Your task to perform on an android device: turn pop-ups off in chrome Image 0: 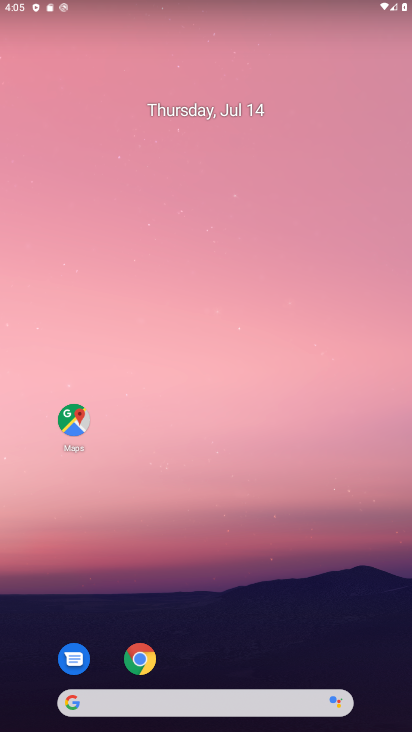
Step 0: drag from (250, 680) to (168, 140)
Your task to perform on an android device: turn pop-ups off in chrome Image 1: 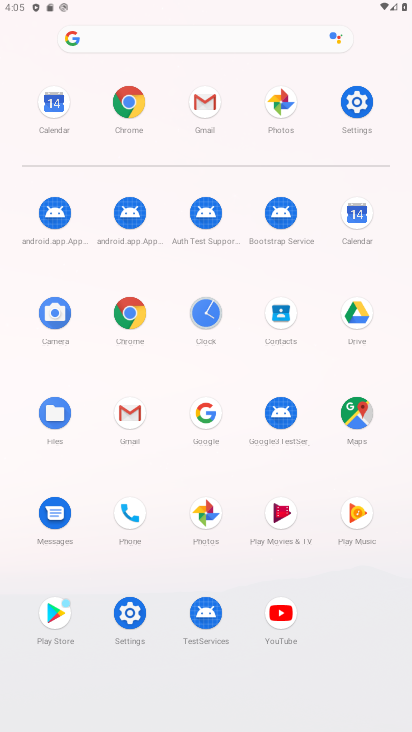
Step 1: click (115, 103)
Your task to perform on an android device: turn pop-ups off in chrome Image 2: 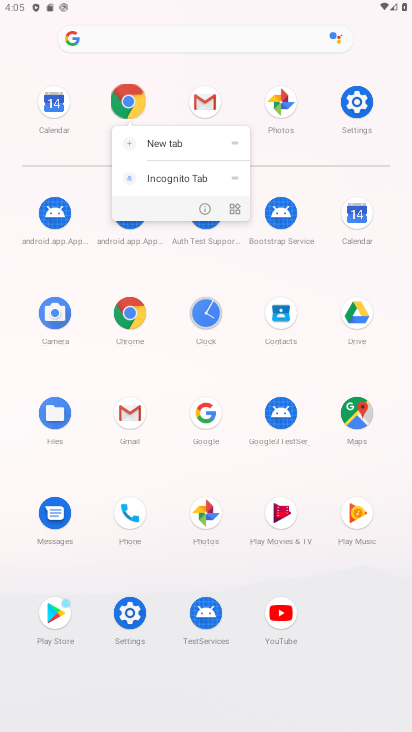
Step 2: click (123, 111)
Your task to perform on an android device: turn pop-ups off in chrome Image 3: 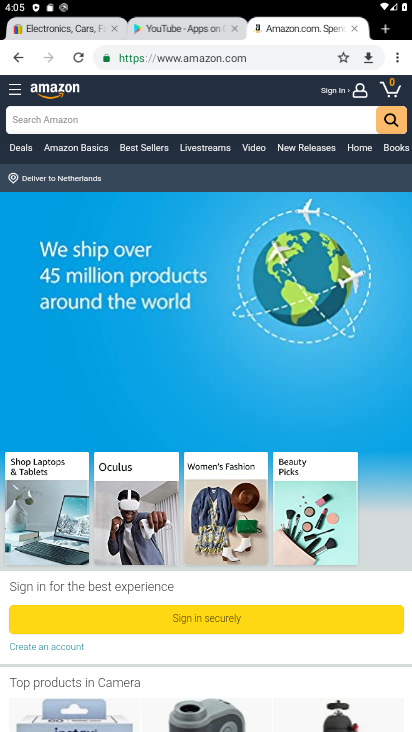
Step 3: click (399, 52)
Your task to perform on an android device: turn pop-ups off in chrome Image 4: 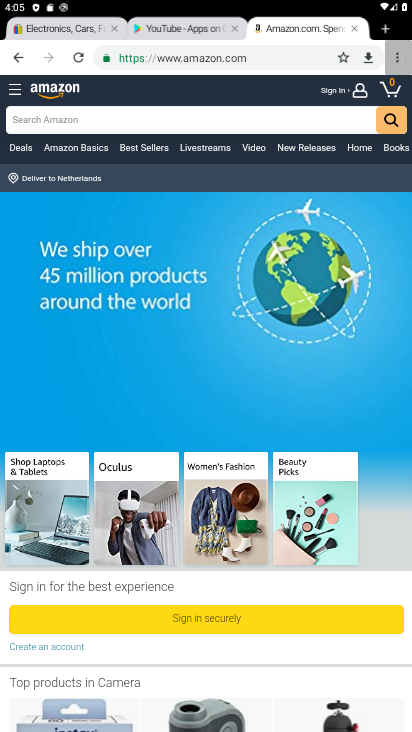
Step 4: click (396, 51)
Your task to perform on an android device: turn pop-ups off in chrome Image 5: 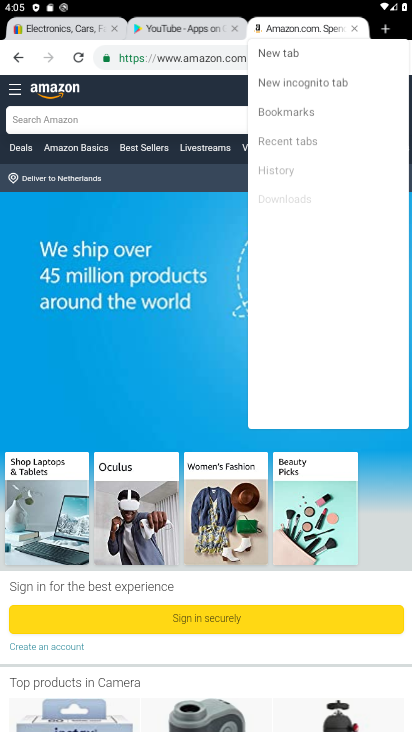
Step 5: click (396, 51)
Your task to perform on an android device: turn pop-ups off in chrome Image 6: 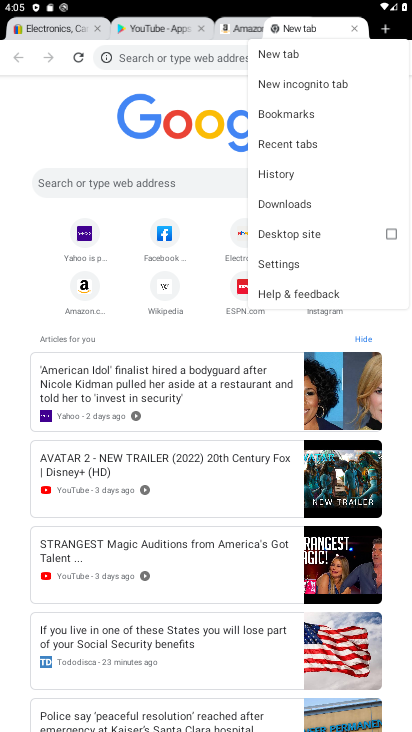
Step 6: click (273, 265)
Your task to perform on an android device: turn pop-ups off in chrome Image 7: 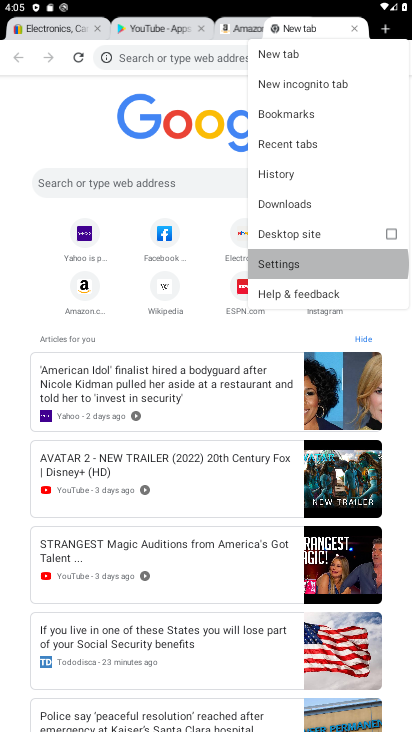
Step 7: click (275, 266)
Your task to perform on an android device: turn pop-ups off in chrome Image 8: 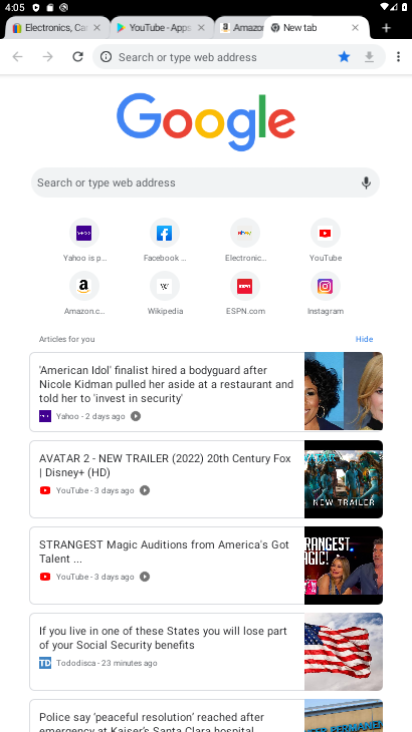
Step 8: click (276, 261)
Your task to perform on an android device: turn pop-ups off in chrome Image 9: 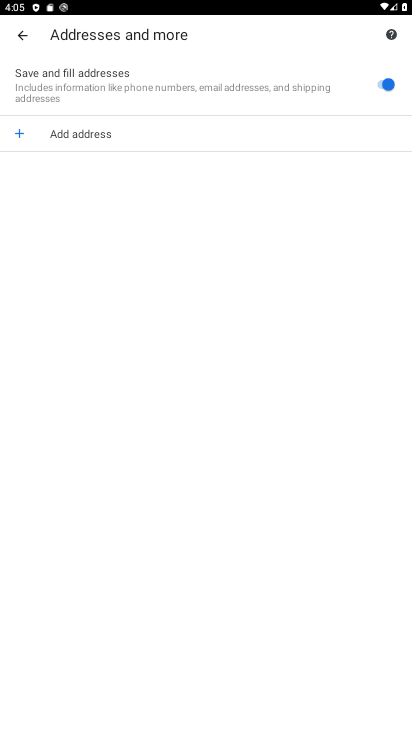
Step 9: click (15, 35)
Your task to perform on an android device: turn pop-ups off in chrome Image 10: 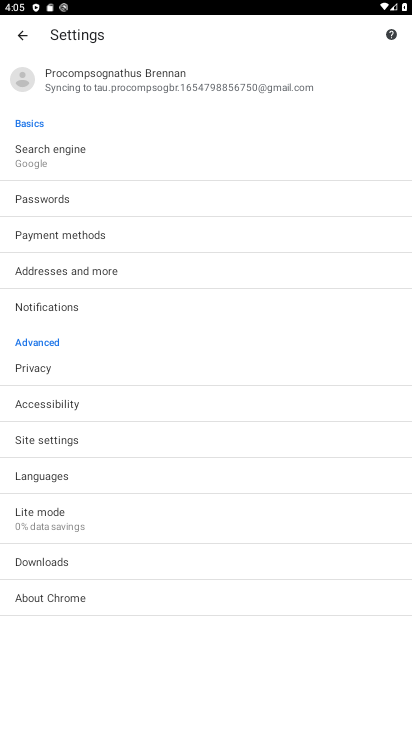
Step 10: click (46, 445)
Your task to perform on an android device: turn pop-ups off in chrome Image 11: 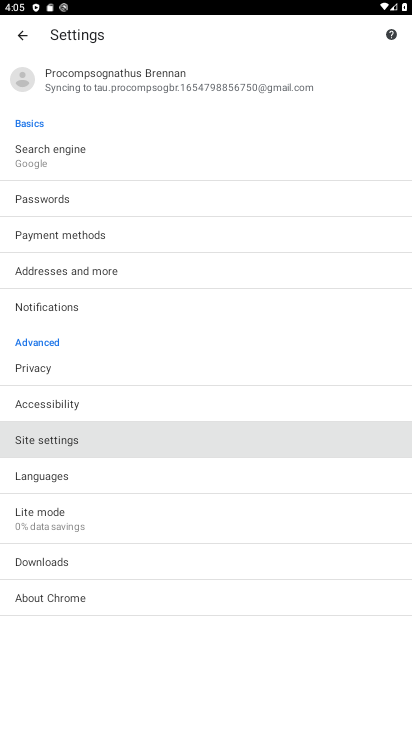
Step 11: click (44, 438)
Your task to perform on an android device: turn pop-ups off in chrome Image 12: 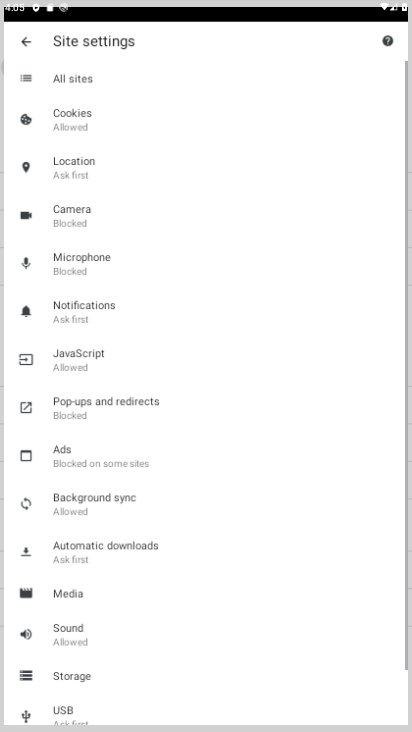
Step 12: click (47, 440)
Your task to perform on an android device: turn pop-ups off in chrome Image 13: 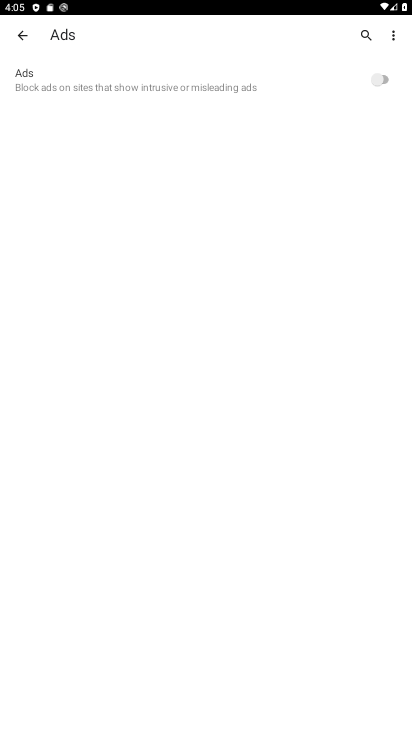
Step 13: click (27, 50)
Your task to perform on an android device: turn pop-ups off in chrome Image 14: 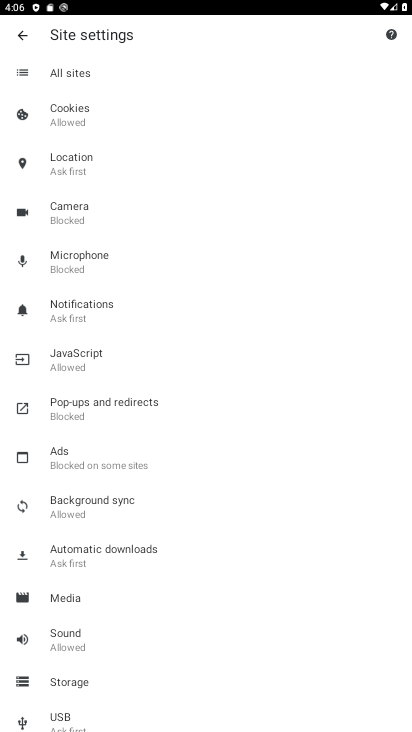
Step 14: click (74, 408)
Your task to perform on an android device: turn pop-ups off in chrome Image 15: 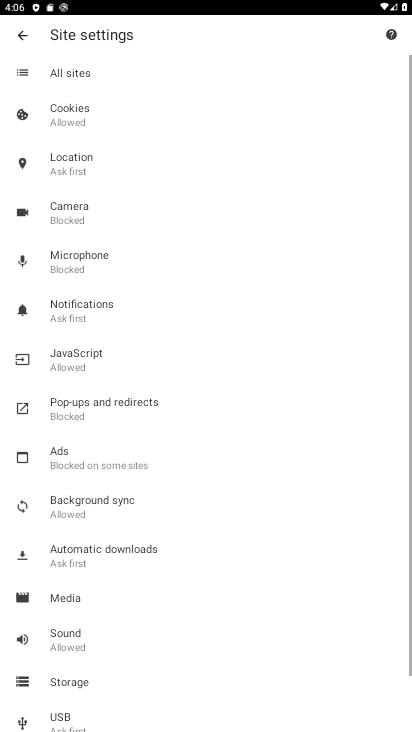
Step 15: click (75, 409)
Your task to perform on an android device: turn pop-ups off in chrome Image 16: 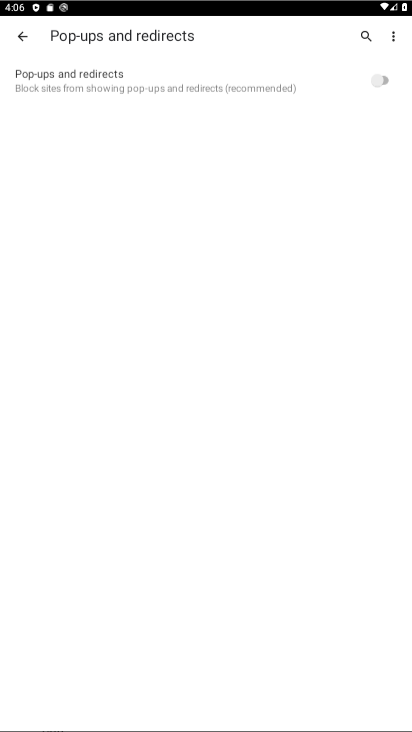
Step 16: click (75, 410)
Your task to perform on an android device: turn pop-ups off in chrome Image 17: 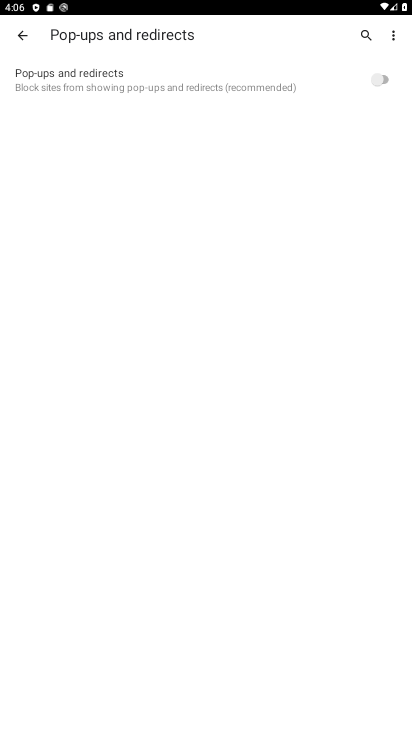
Step 17: task complete